Your task to perform on an android device: check android version Image 0: 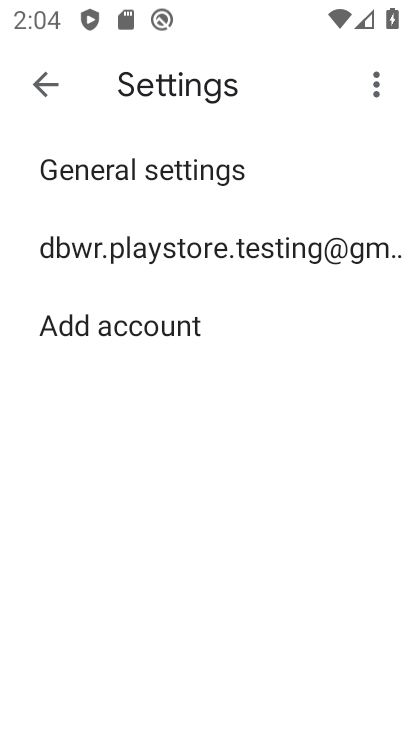
Step 0: press home button
Your task to perform on an android device: check android version Image 1: 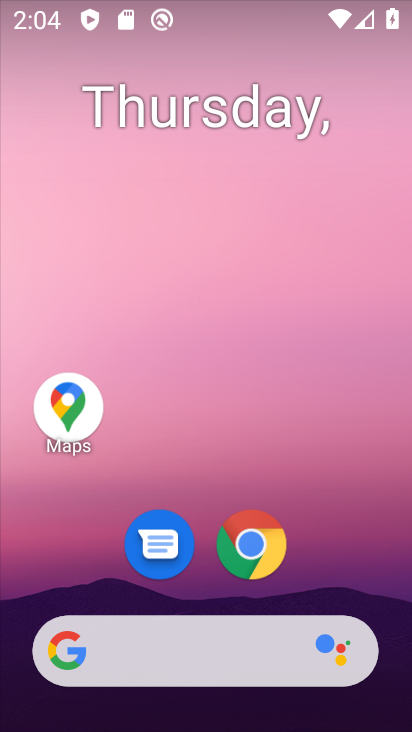
Step 1: drag from (359, 548) to (195, 140)
Your task to perform on an android device: check android version Image 2: 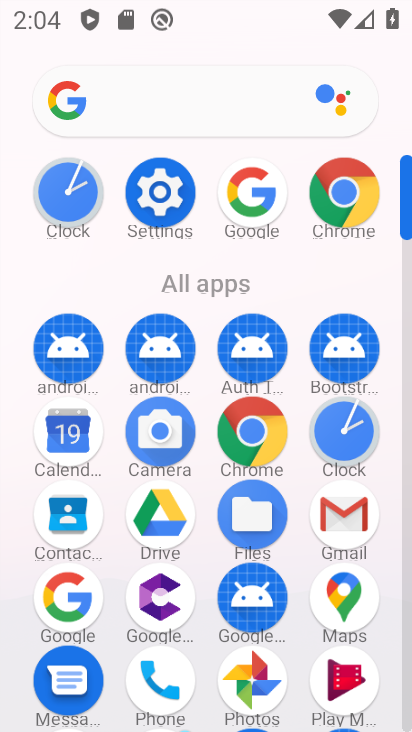
Step 2: click (168, 193)
Your task to perform on an android device: check android version Image 3: 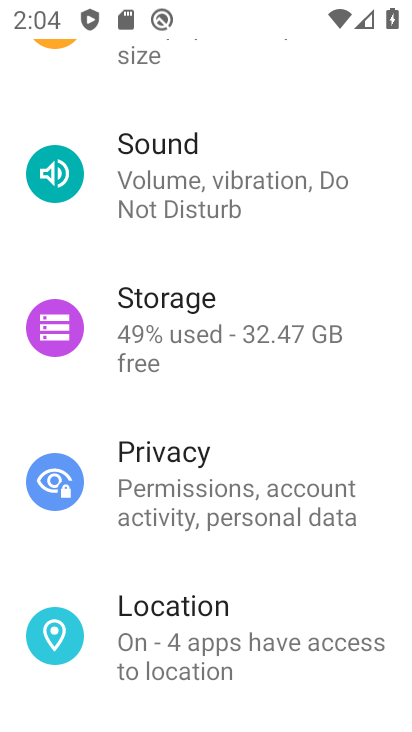
Step 3: drag from (199, 655) to (209, 115)
Your task to perform on an android device: check android version Image 4: 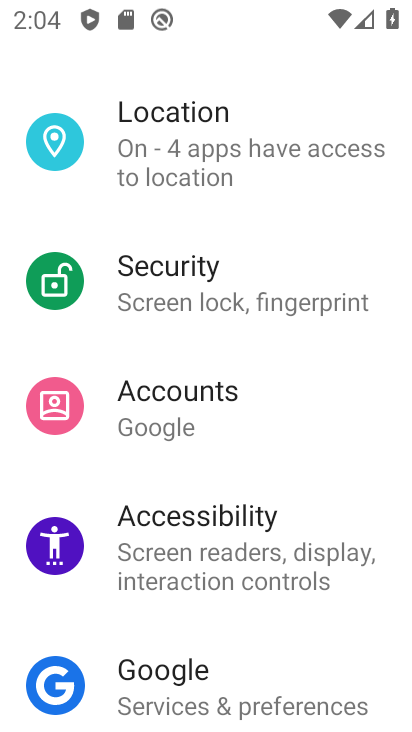
Step 4: drag from (106, 565) to (164, 135)
Your task to perform on an android device: check android version Image 5: 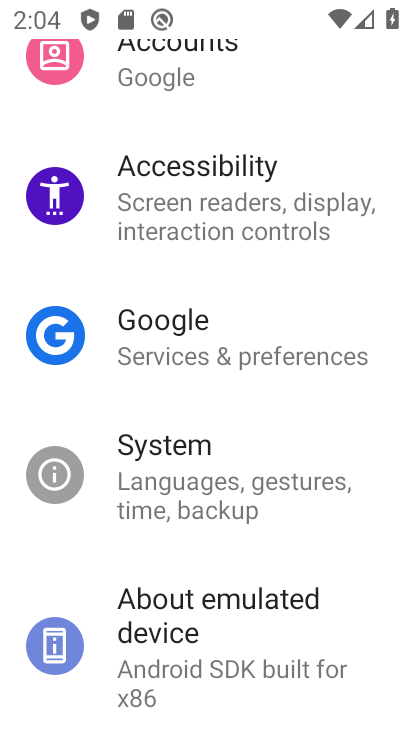
Step 5: click (160, 654)
Your task to perform on an android device: check android version Image 6: 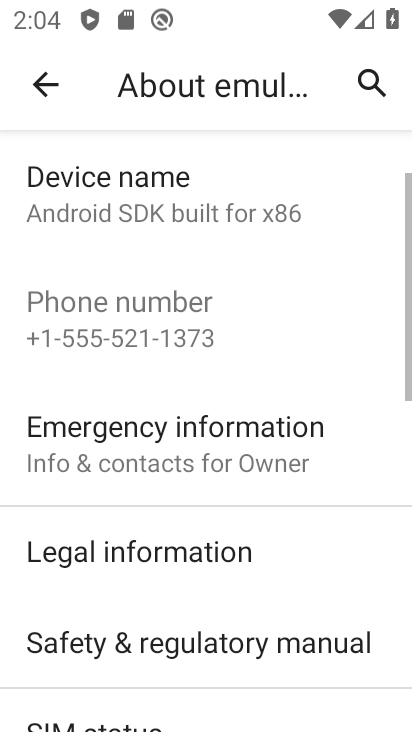
Step 6: drag from (159, 638) to (164, 239)
Your task to perform on an android device: check android version Image 7: 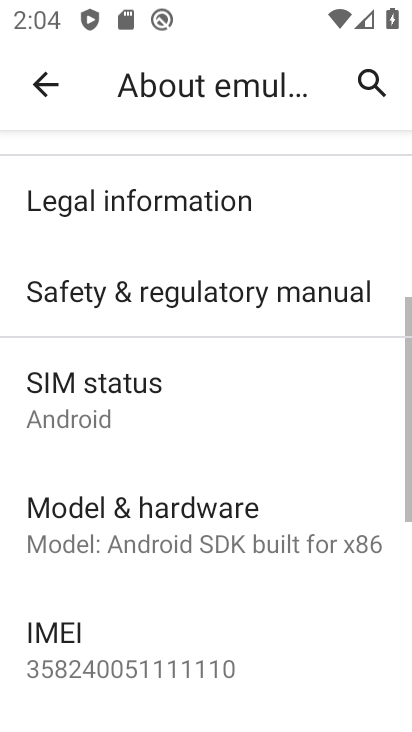
Step 7: drag from (96, 675) to (99, 292)
Your task to perform on an android device: check android version Image 8: 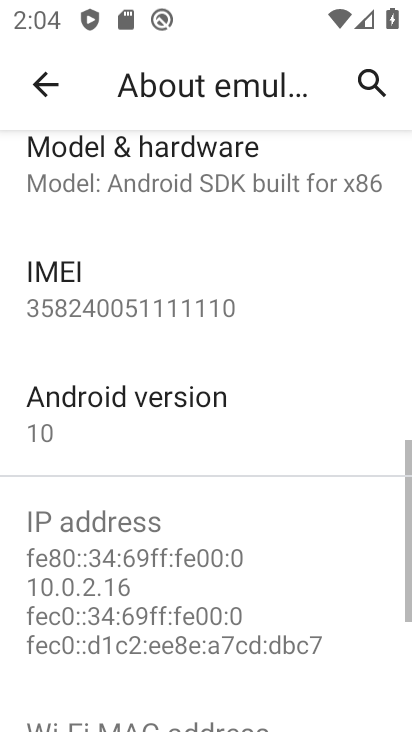
Step 8: click (95, 379)
Your task to perform on an android device: check android version Image 9: 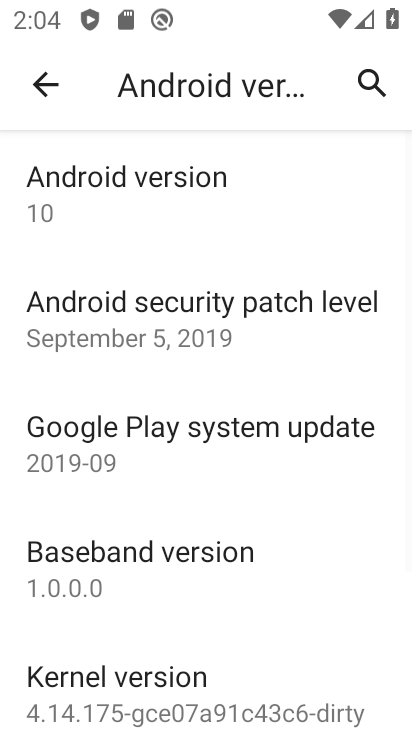
Step 9: click (70, 207)
Your task to perform on an android device: check android version Image 10: 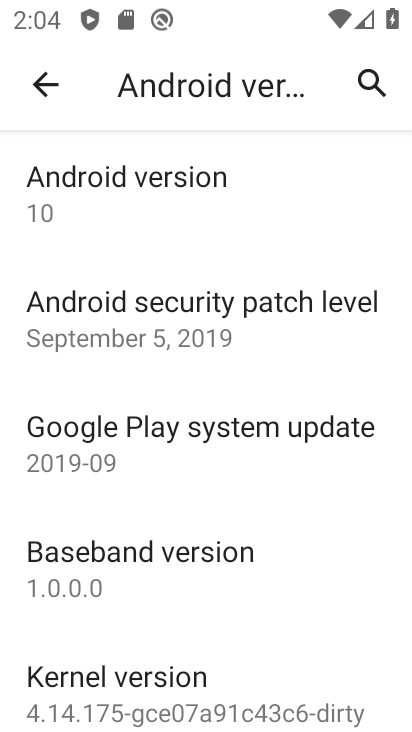
Step 10: task complete